Your task to perform on an android device: Do I have any events this weekend? Image 0: 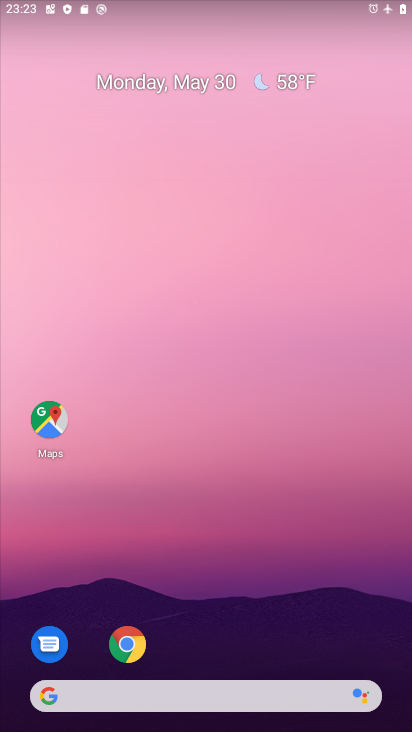
Step 0: drag from (379, 641) to (375, 58)
Your task to perform on an android device: Do I have any events this weekend? Image 1: 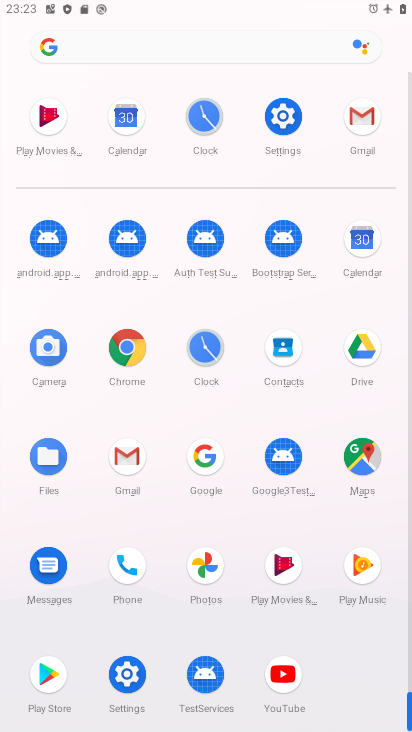
Step 1: click (360, 241)
Your task to perform on an android device: Do I have any events this weekend? Image 2: 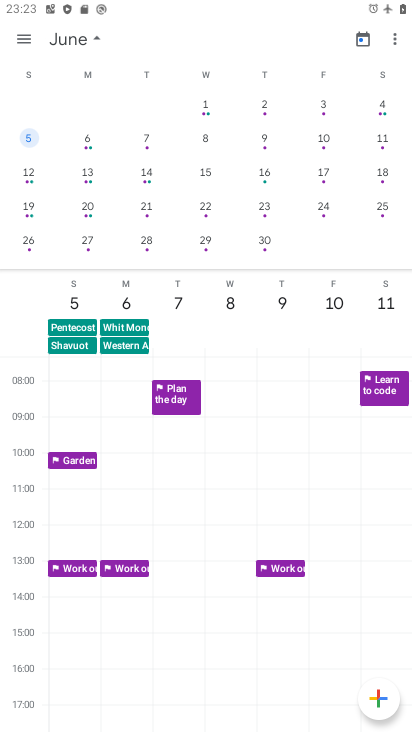
Step 2: click (21, 39)
Your task to perform on an android device: Do I have any events this weekend? Image 3: 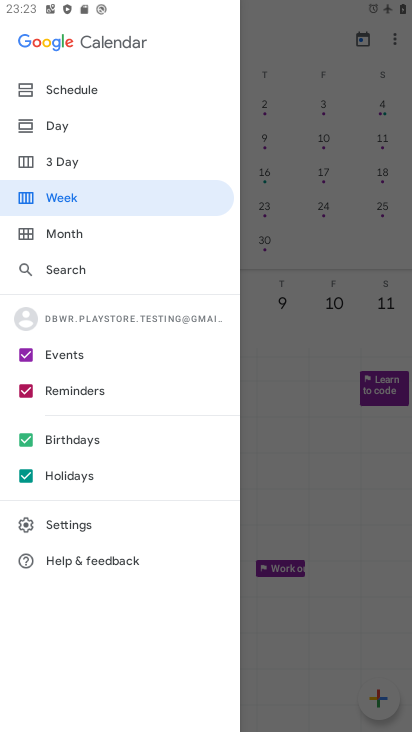
Step 3: click (68, 188)
Your task to perform on an android device: Do I have any events this weekend? Image 4: 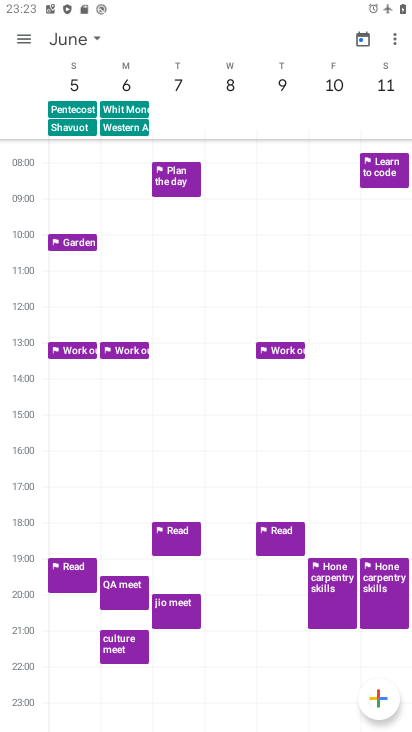
Step 4: click (98, 31)
Your task to perform on an android device: Do I have any events this weekend? Image 5: 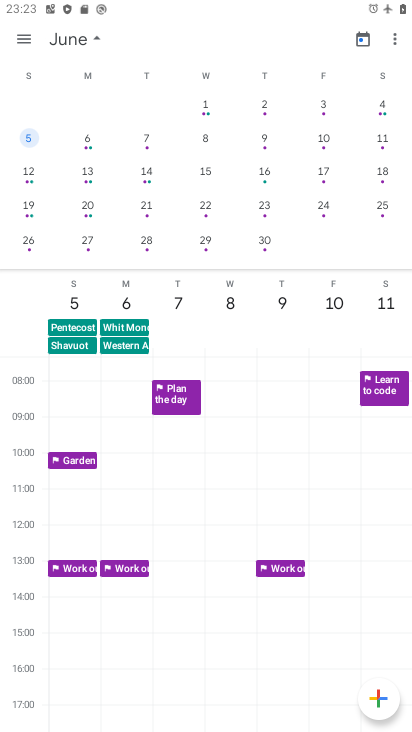
Step 5: drag from (19, 204) to (347, 203)
Your task to perform on an android device: Do I have any events this weekend? Image 6: 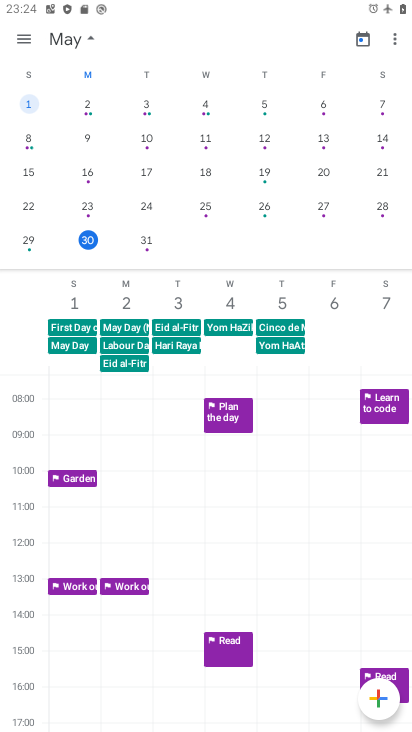
Step 6: click (85, 236)
Your task to perform on an android device: Do I have any events this weekend? Image 7: 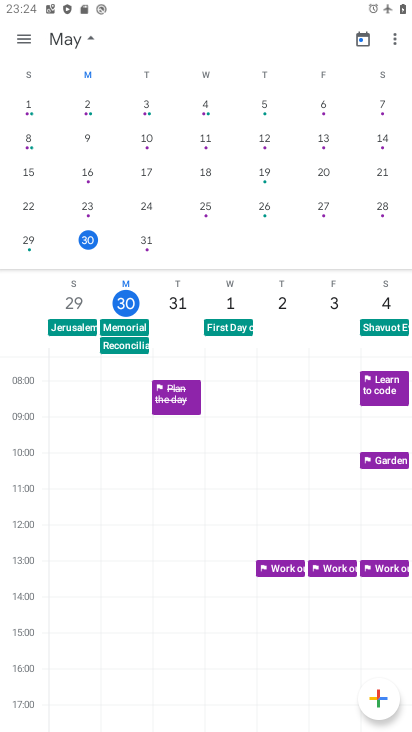
Step 7: task complete